Your task to perform on an android device: Open calendar and show me the third week of next month Image 0: 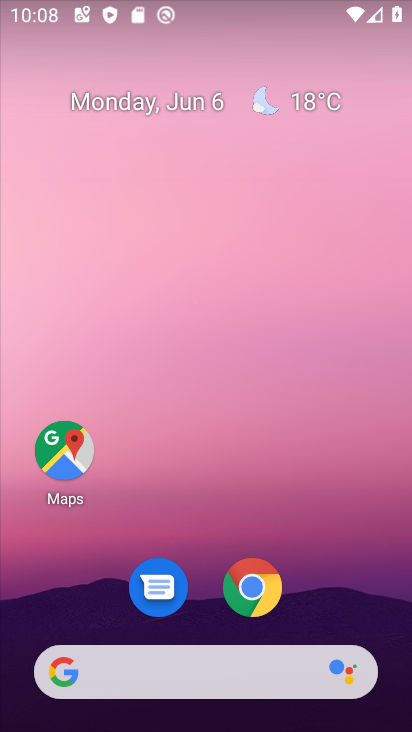
Step 0: drag from (357, 589) to (278, 105)
Your task to perform on an android device: Open calendar and show me the third week of next month Image 1: 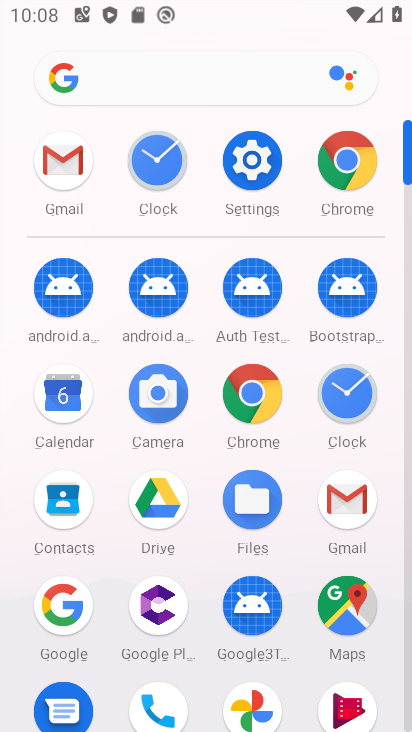
Step 1: click (46, 403)
Your task to perform on an android device: Open calendar and show me the third week of next month Image 2: 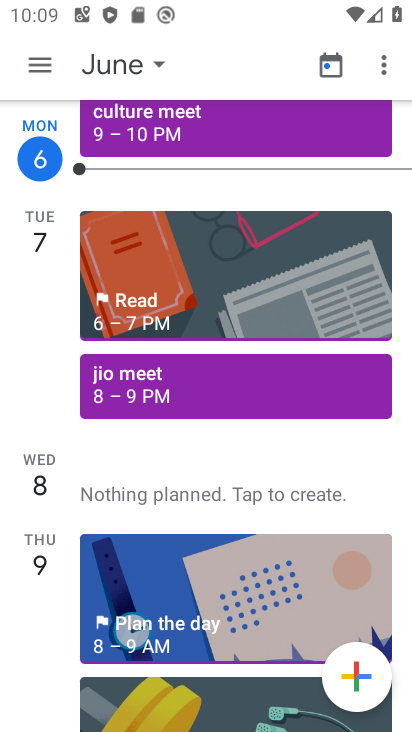
Step 2: click (24, 68)
Your task to perform on an android device: Open calendar and show me the third week of next month Image 3: 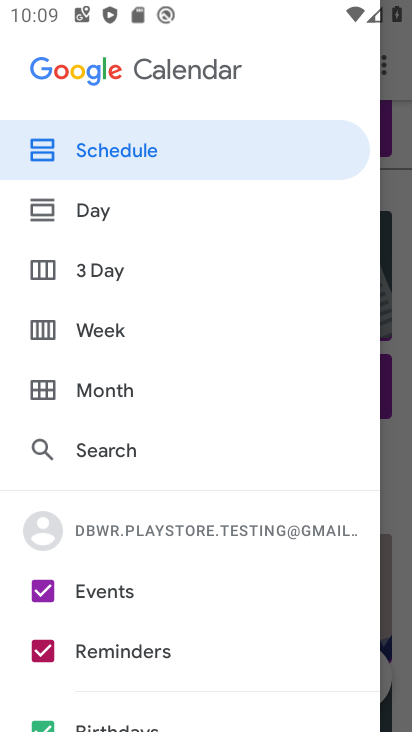
Step 3: click (152, 383)
Your task to perform on an android device: Open calendar and show me the third week of next month Image 4: 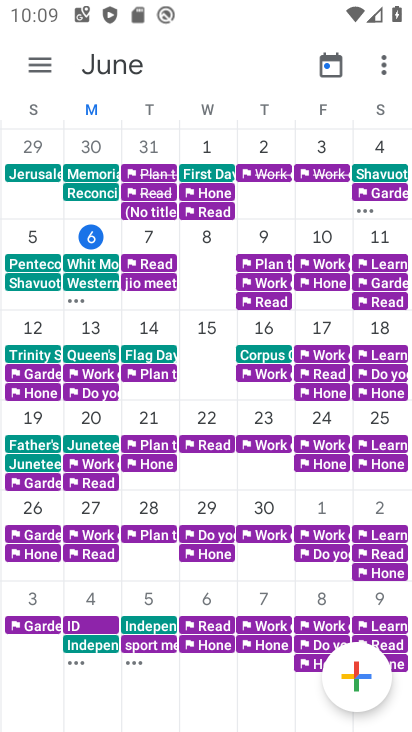
Step 4: task complete